Your task to perform on an android device: manage bookmarks in the chrome app Image 0: 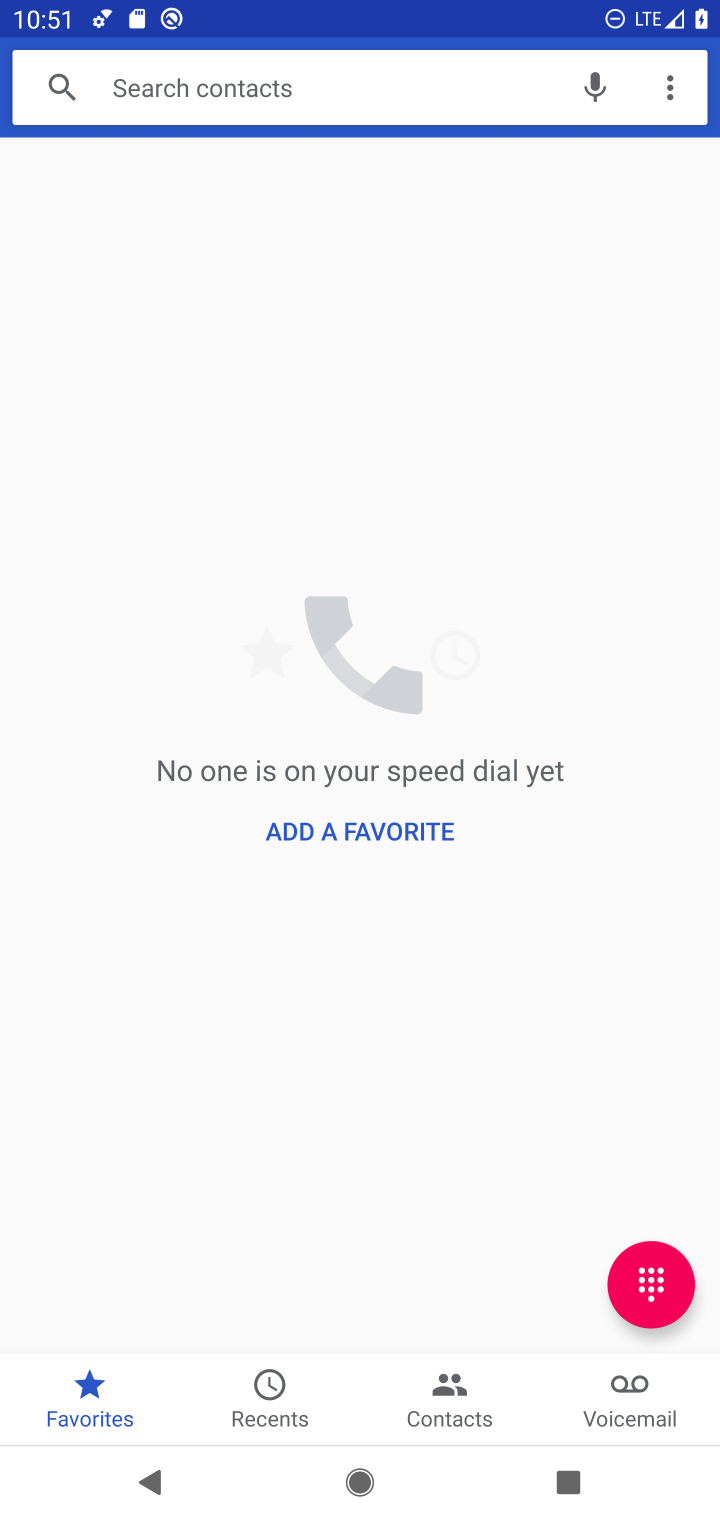
Step 0: press home button
Your task to perform on an android device: manage bookmarks in the chrome app Image 1: 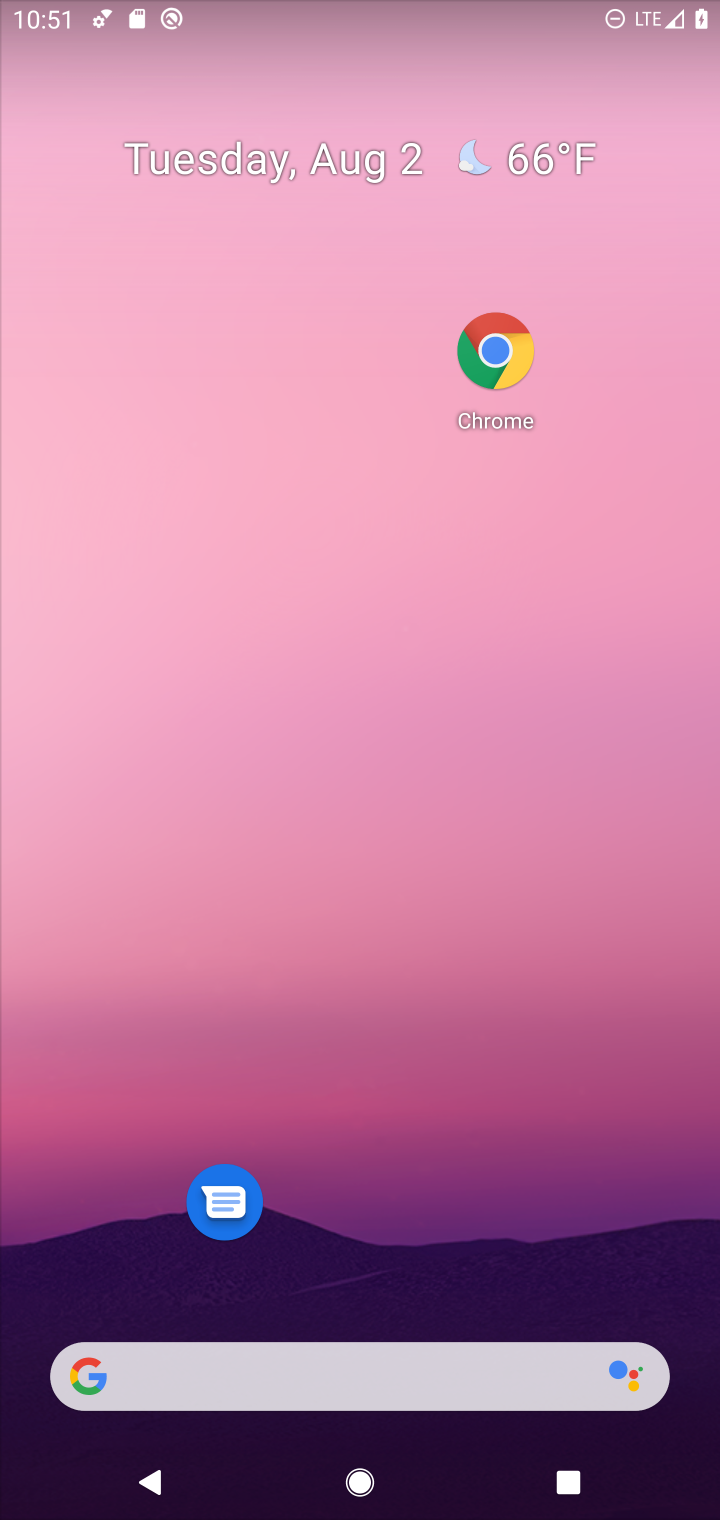
Step 1: click (483, 356)
Your task to perform on an android device: manage bookmarks in the chrome app Image 2: 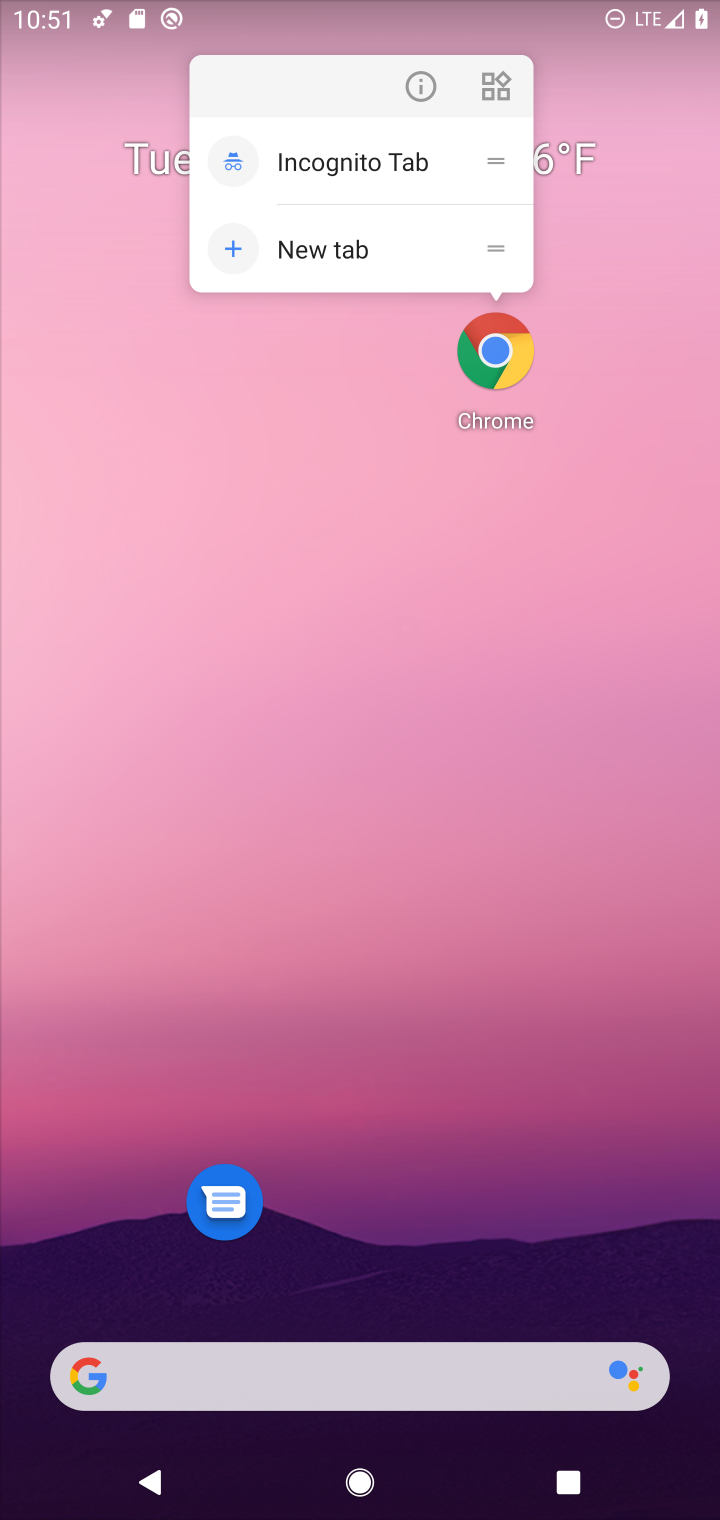
Step 2: click (483, 356)
Your task to perform on an android device: manage bookmarks in the chrome app Image 3: 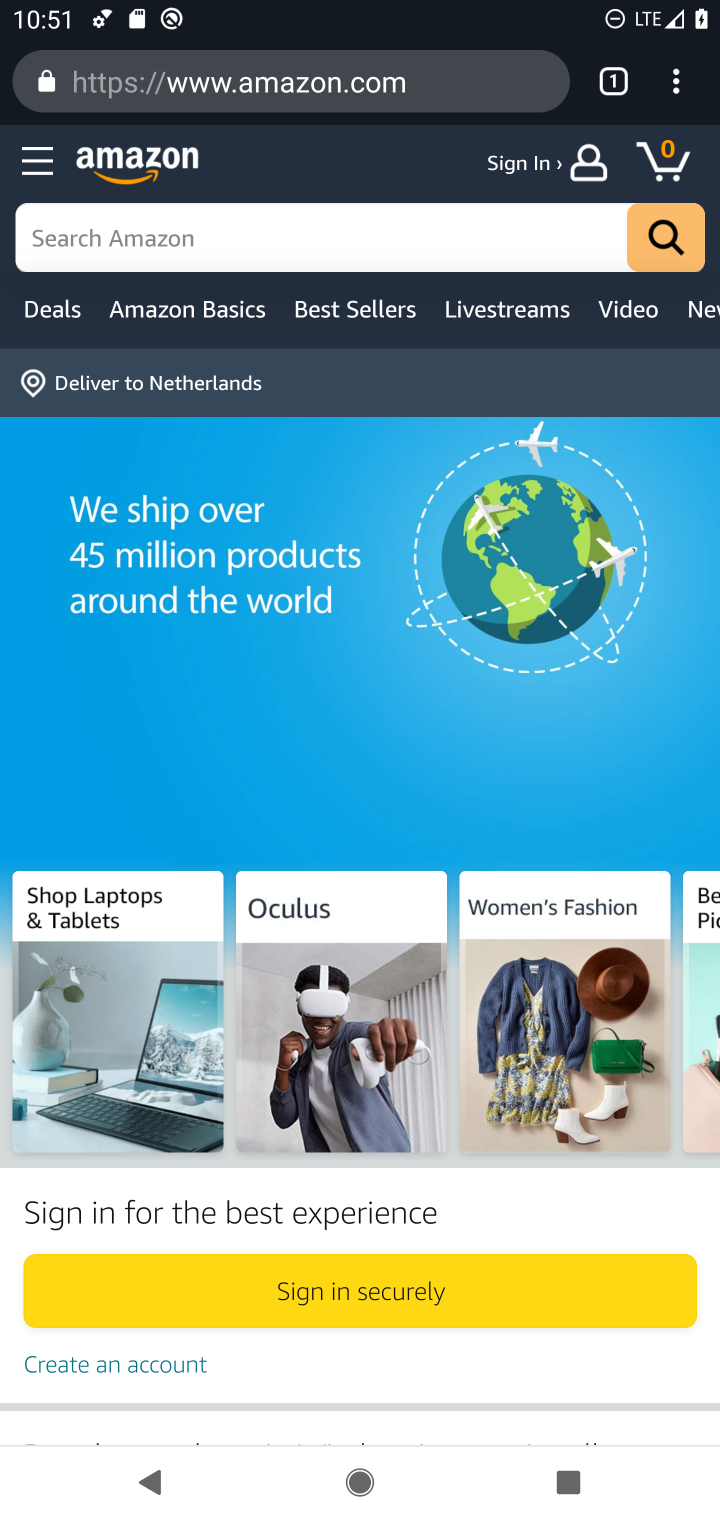
Step 3: drag from (679, 85) to (467, 314)
Your task to perform on an android device: manage bookmarks in the chrome app Image 4: 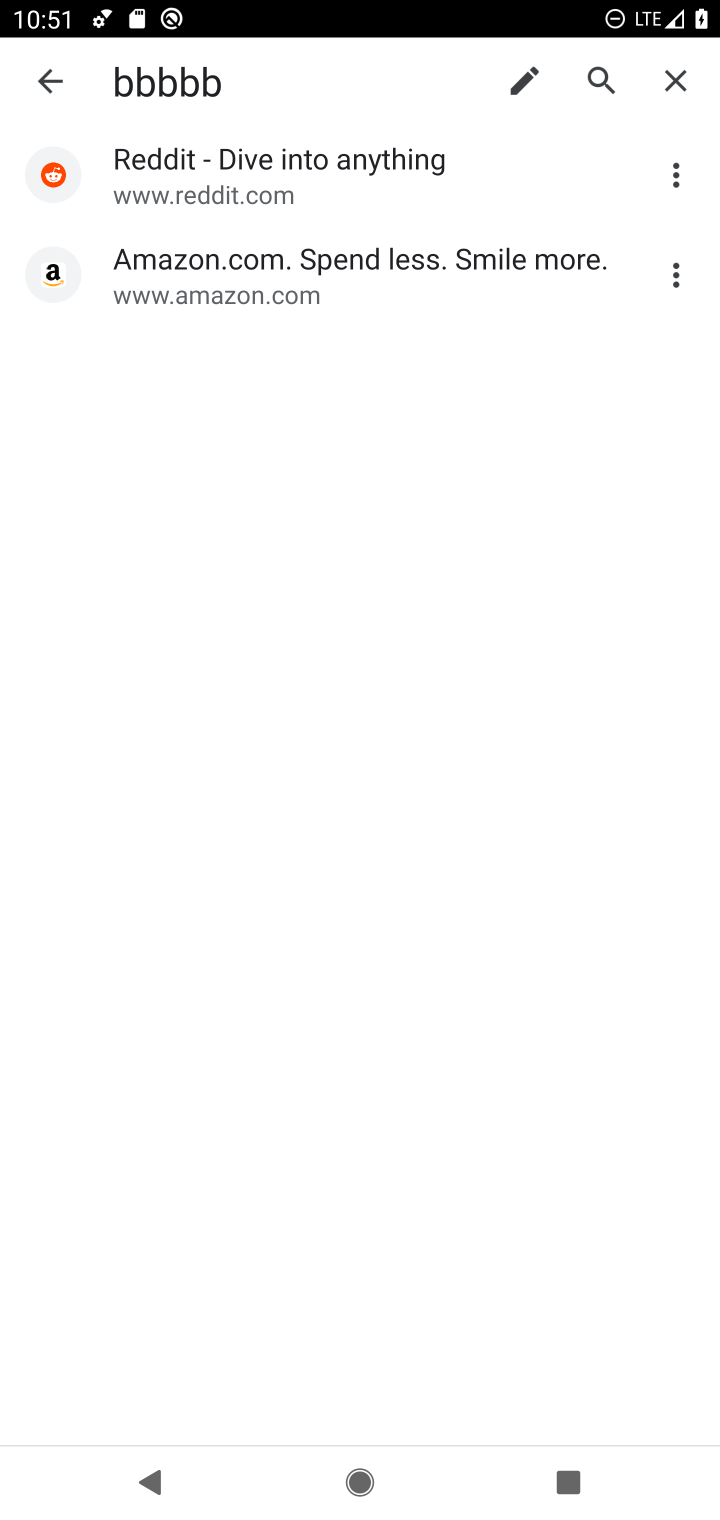
Step 4: click (673, 281)
Your task to perform on an android device: manage bookmarks in the chrome app Image 5: 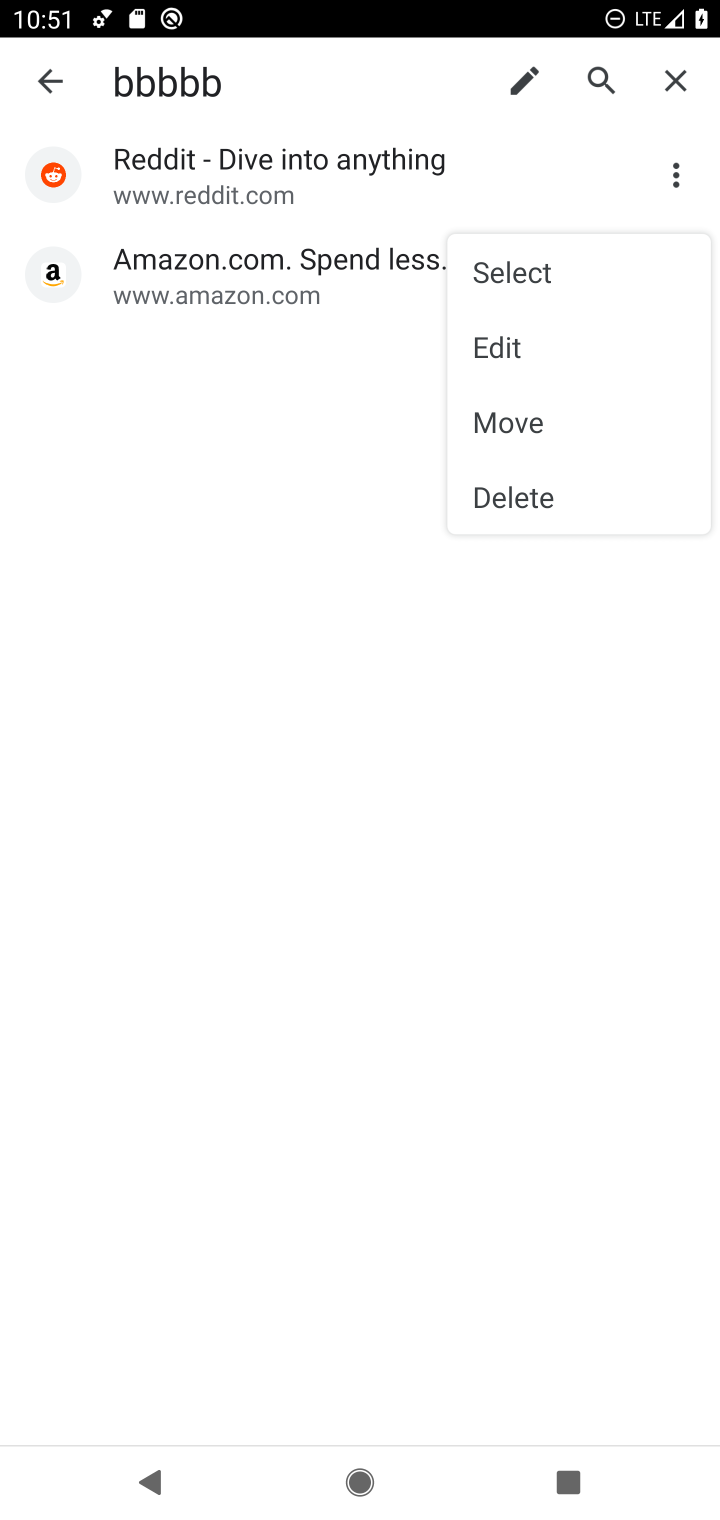
Step 5: click (504, 421)
Your task to perform on an android device: manage bookmarks in the chrome app Image 6: 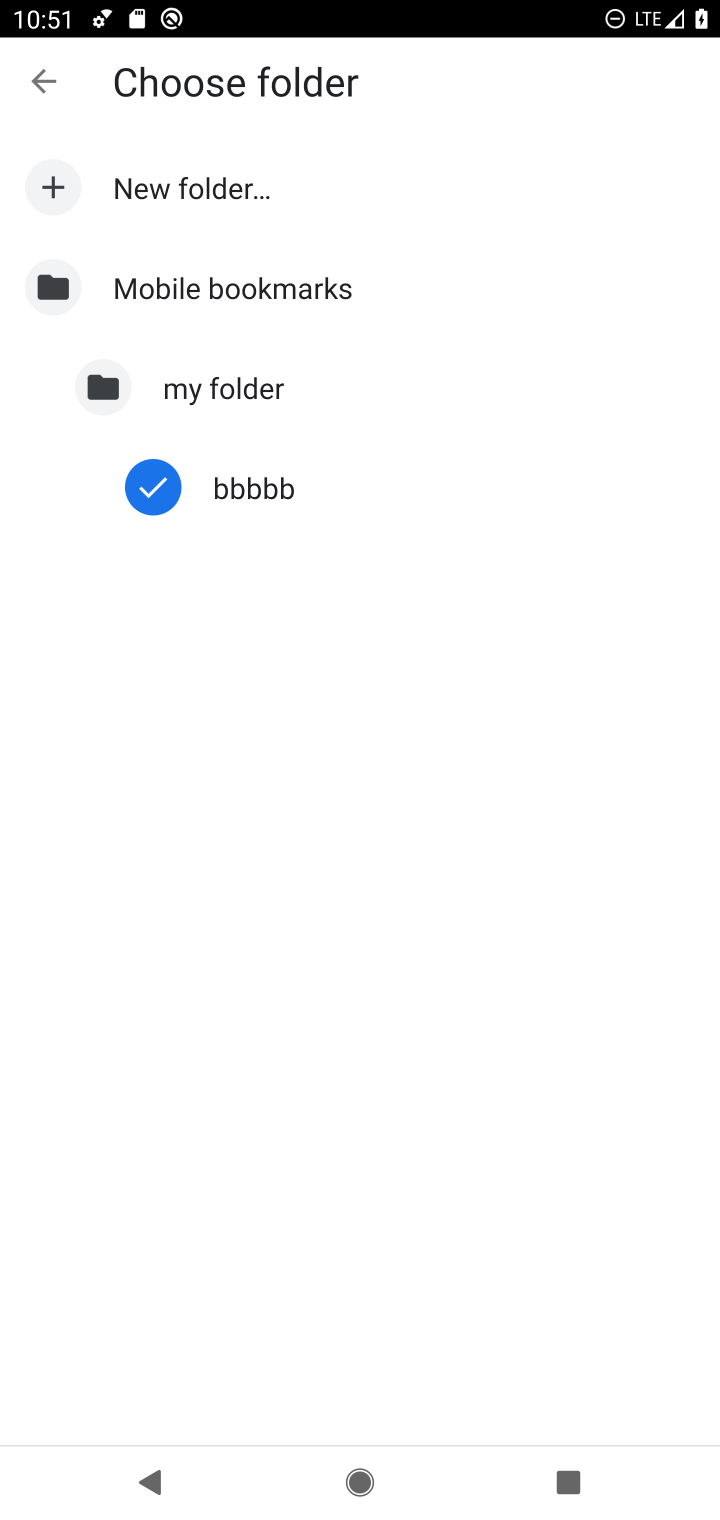
Step 6: click (221, 379)
Your task to perform on an android device: manage bookmarks in the chrome app Image 7: 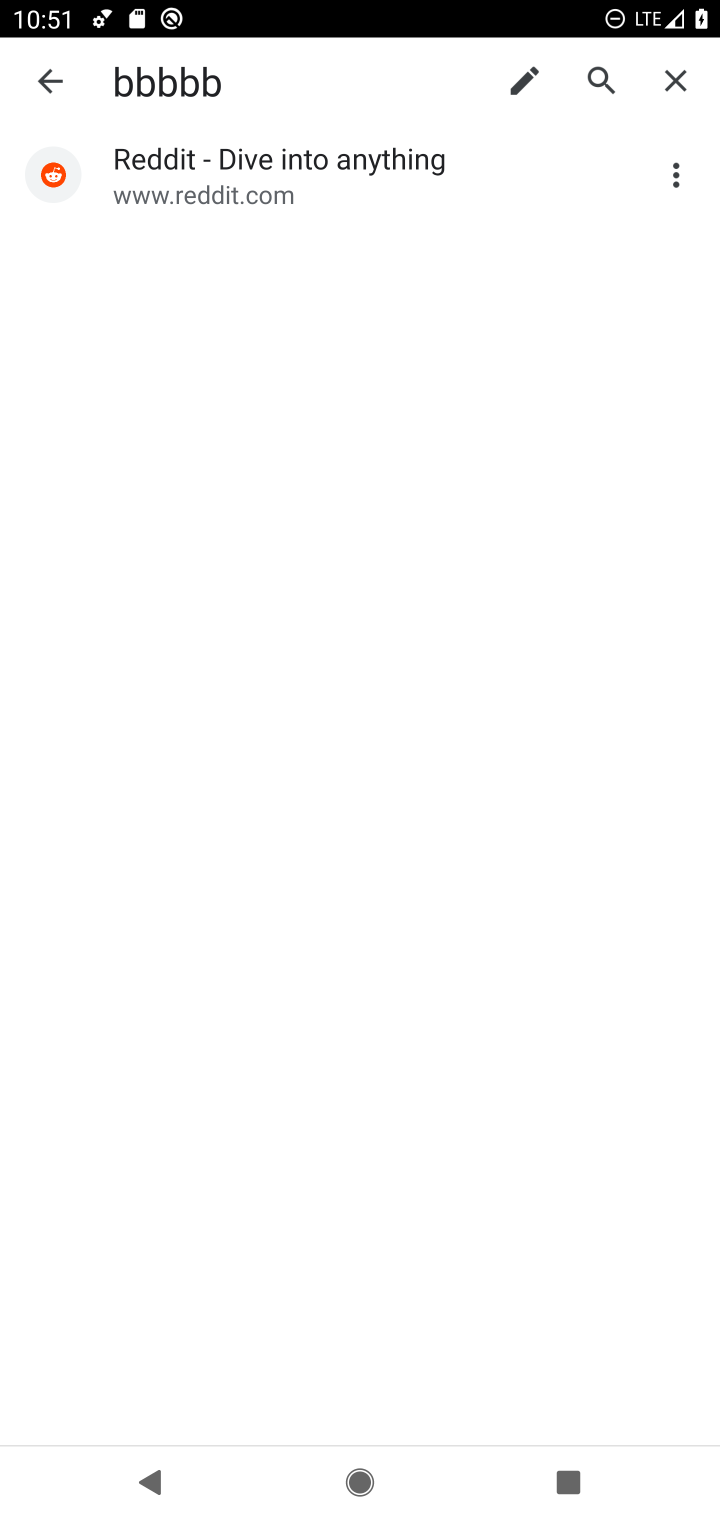
Step 7: task complete